Your task to perform on an android device: Toggle the flashlight Image 0: 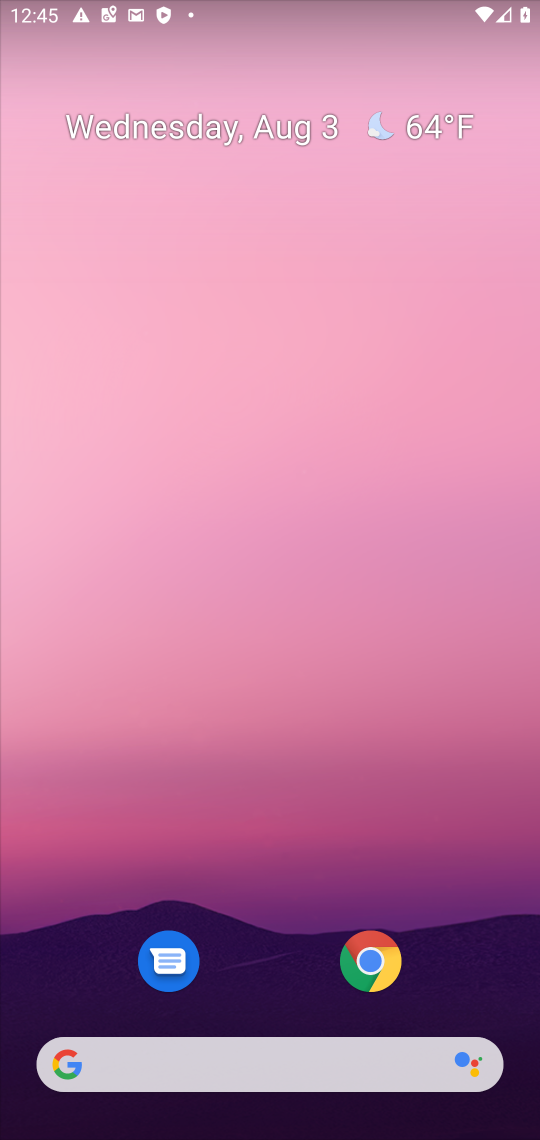
Step 0: drag from (265, 207) to (299, 947)
Your task to perform on an android device: Toggle the flashlight Image 1: 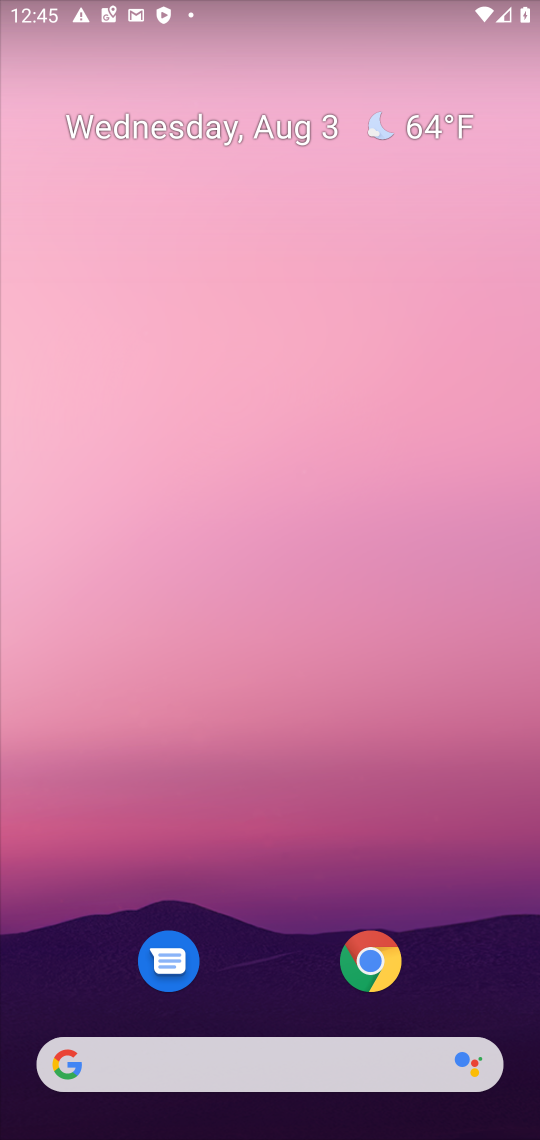
Step 1: task complete